Your task to perform on an android device: Go to display settings Image 0: 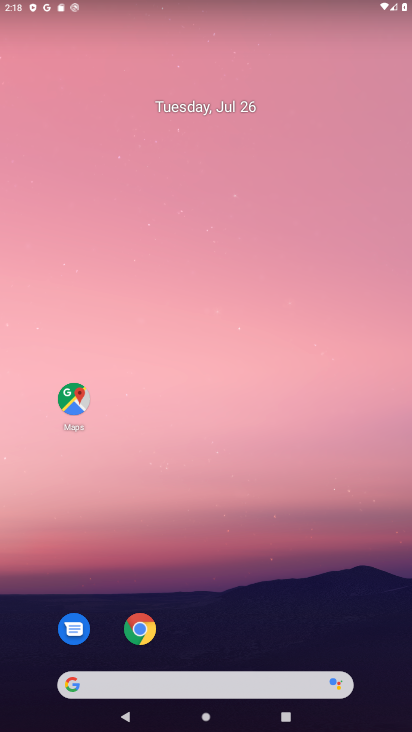
Step 0: drag from (260, 641) to (200, 124)
Your task to perform on an android device: Go to display settings Image 1: 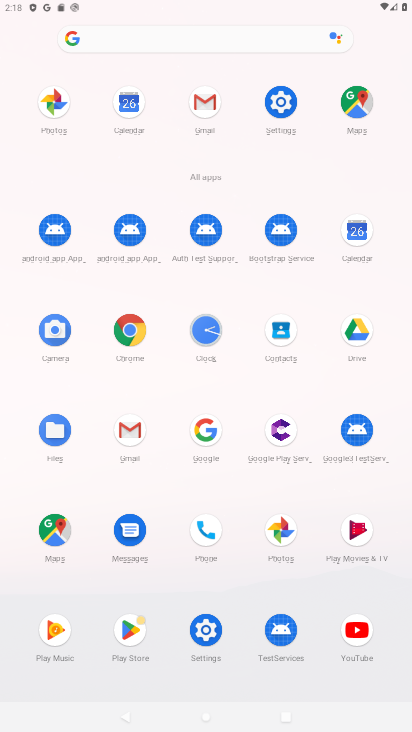
Step 1: click (291, 98)
Your task to perform on an android device: Go to display settings Image 2: 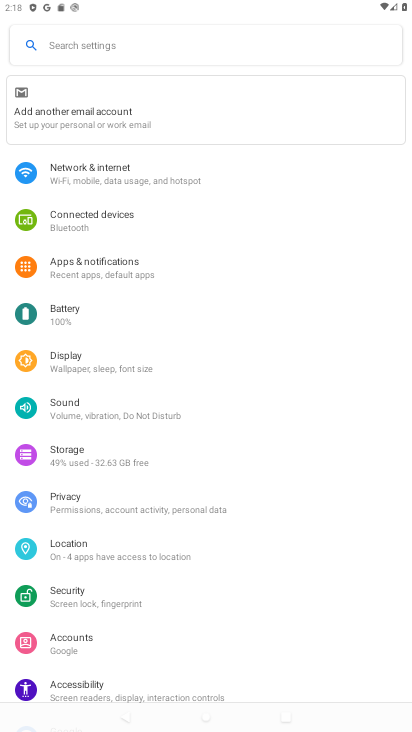
Step 2: click (142, 368)
Your task to perform on an android device: Go to display settings Image 3: 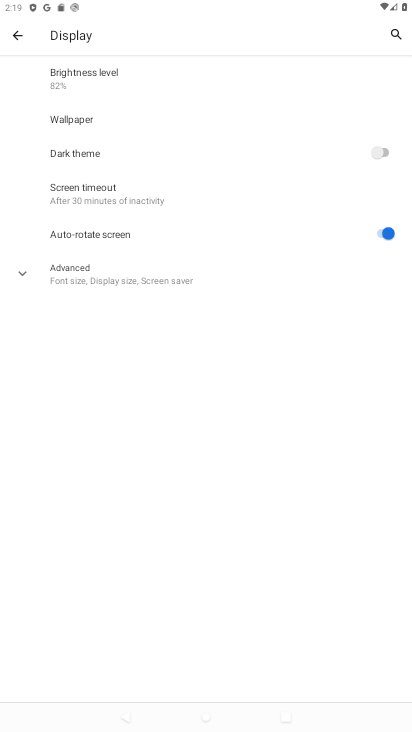
Step 3: task complete